Your task to perform on an android device: check storage Image 0: 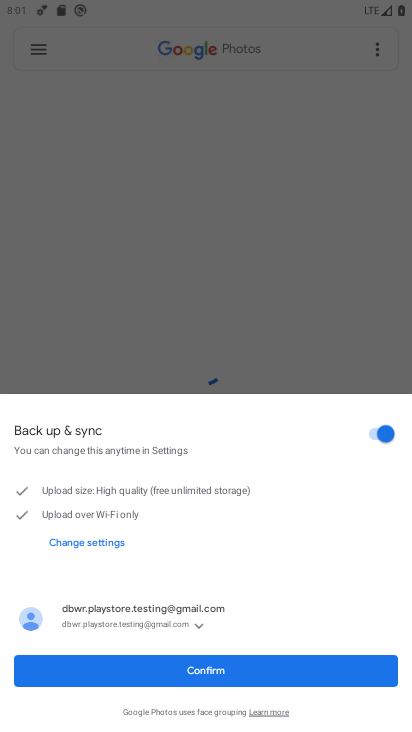
Step 0: press home button
Your task to perform on an android device: check storage Image 1: 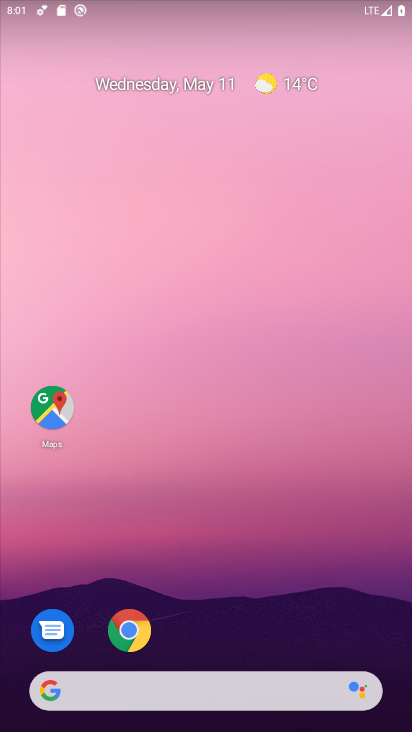
Step 1: drag from (19, 695) to (270, 196)
Your task to perform on an android device: check storage Image 2: 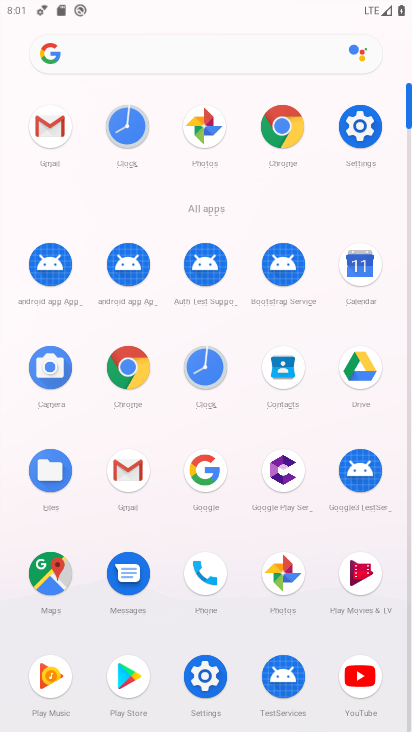
Step 2: click (357, 122)
Your task to perform on an android device: check storage Image 3: 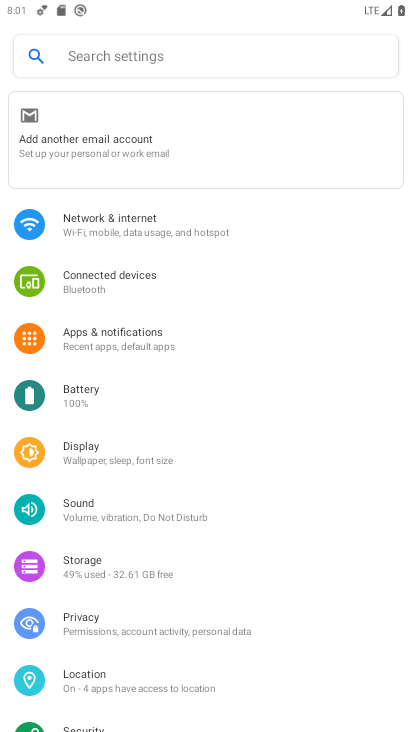
Step 3: click (92, 558)
Your task to perform on an android device: check storage Image 4: 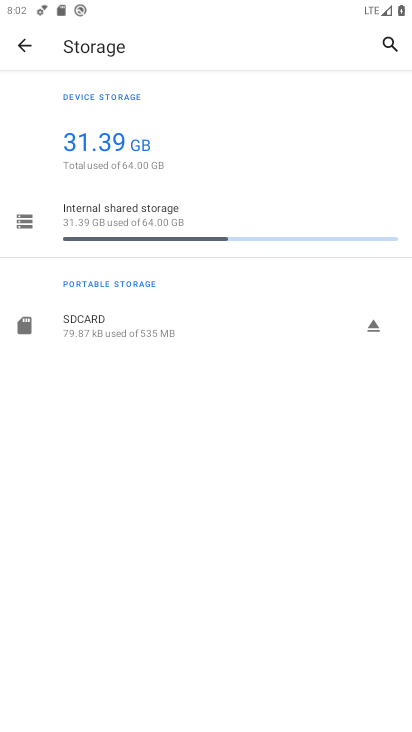
Step 4: task complete